Your task to perform on an android device: Search for the best selling vase on Crate & Barrel Image 0: 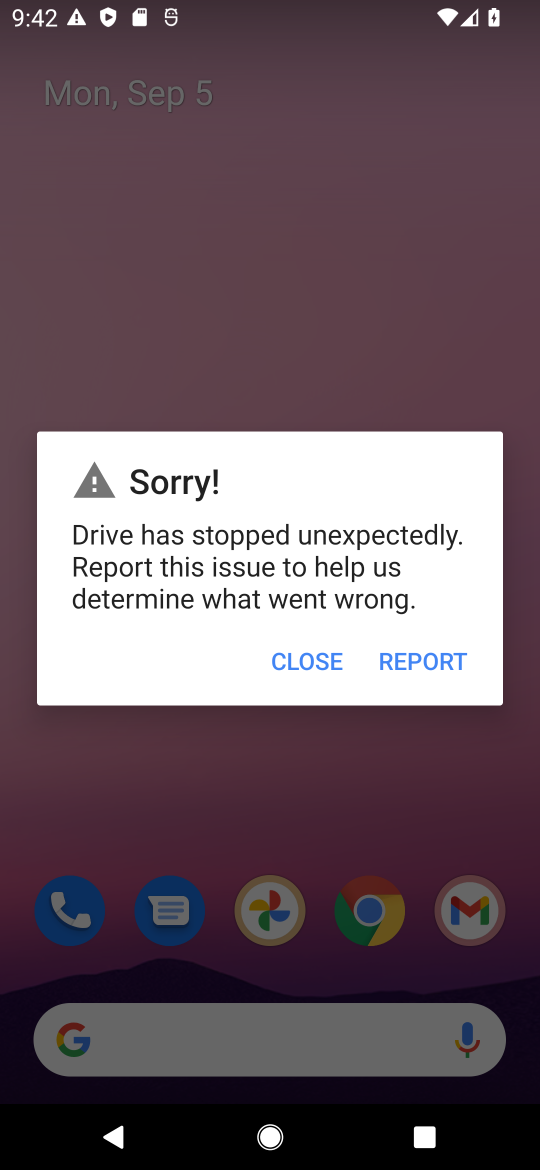
Step 0: click (318, 659)
Your task to perform on an android device: Search for the best selling vase on Crate & Barrel Image 1: 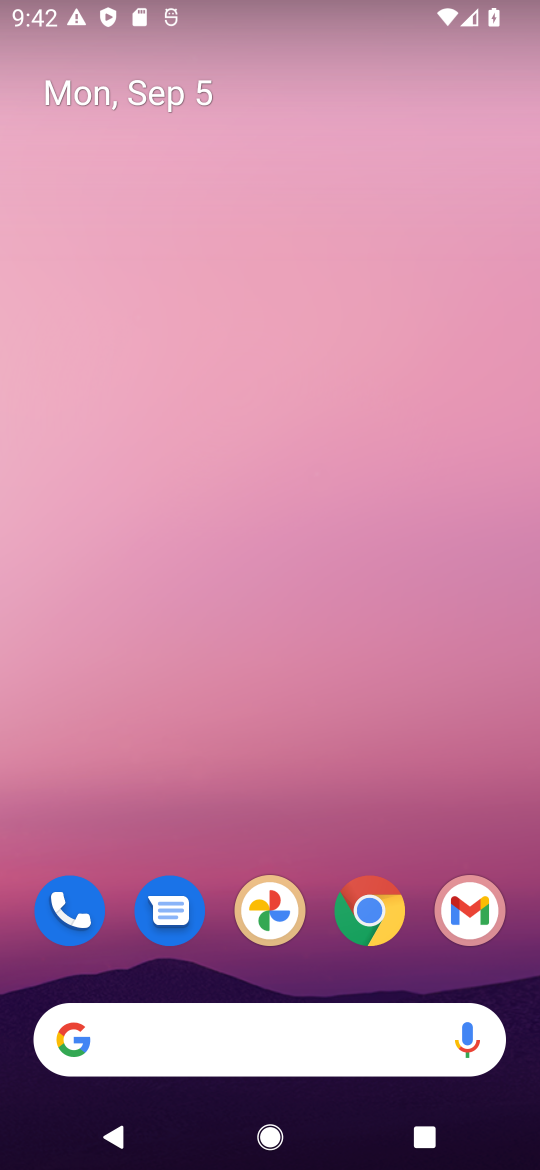
Step 1: click (372, 934)
Your task to perform on an android device: Search for the best selling vase on Crate & Barrel Image 2: 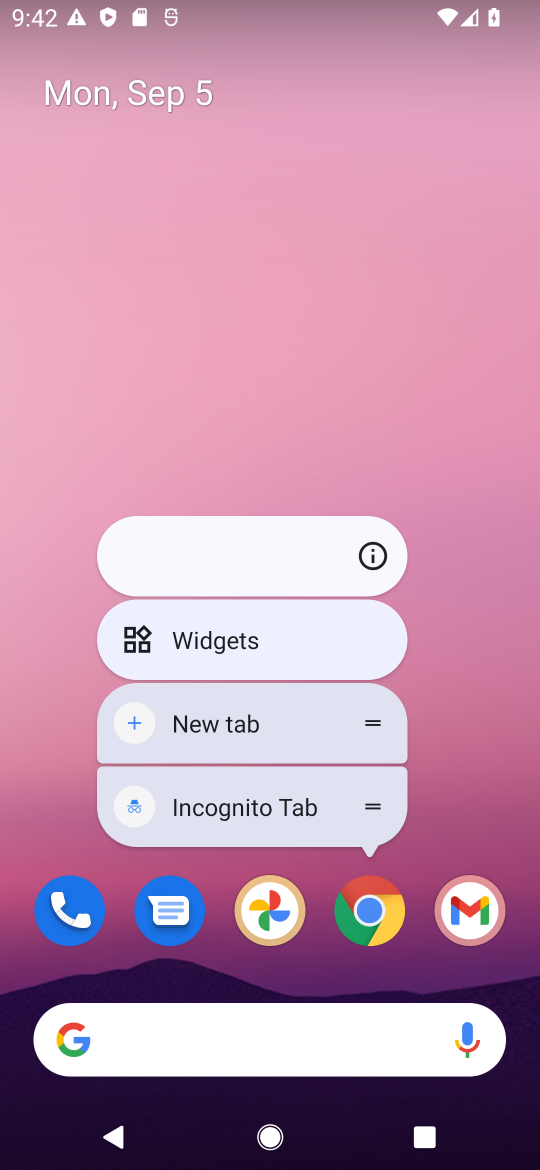
Step 2: click (380, 936)
Your task to perform on an android device: Search for the best selling vase on Crate & Barrel Image 3: 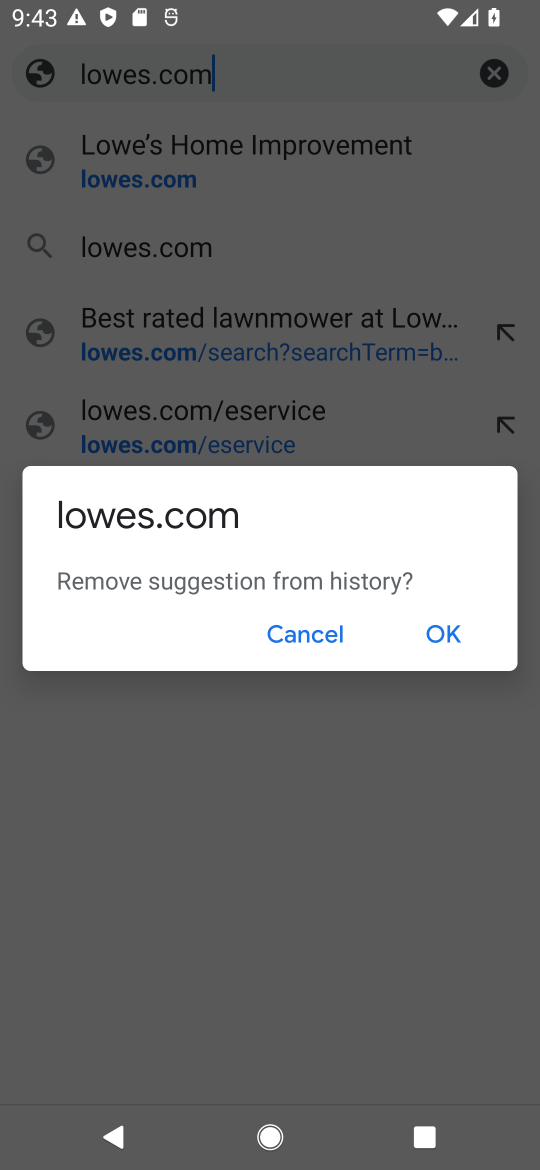
Step 3: click (311, 641)
Your task to perform on an android device: Search for the best selling vase on Crate & Barrel Image 4: 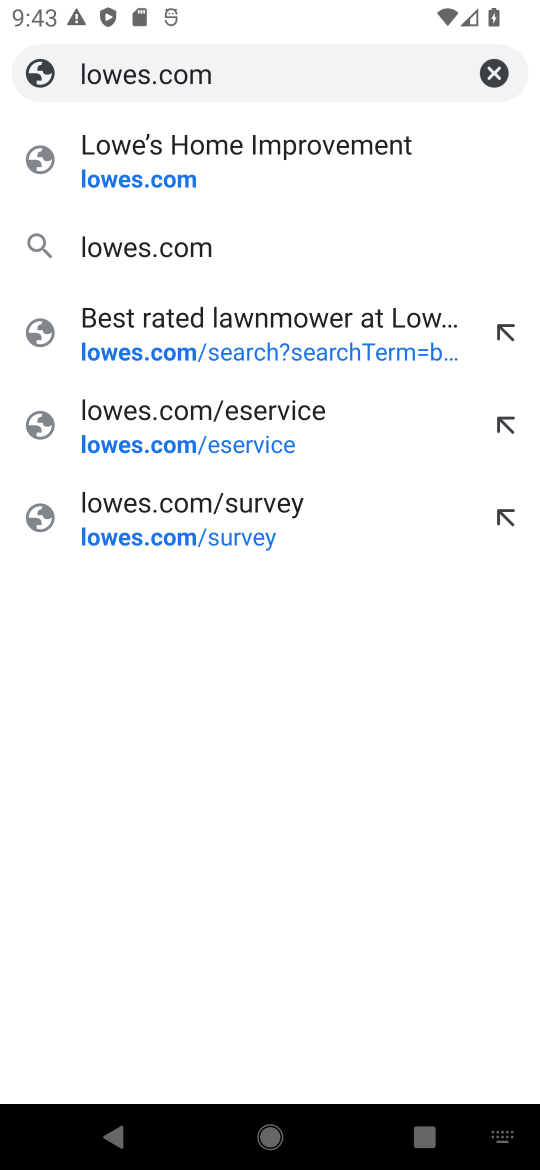
Step 4: click (492, 83)
Your task to perform on an android device: Search for the best selling vase on Crate & Barrel Image 5: 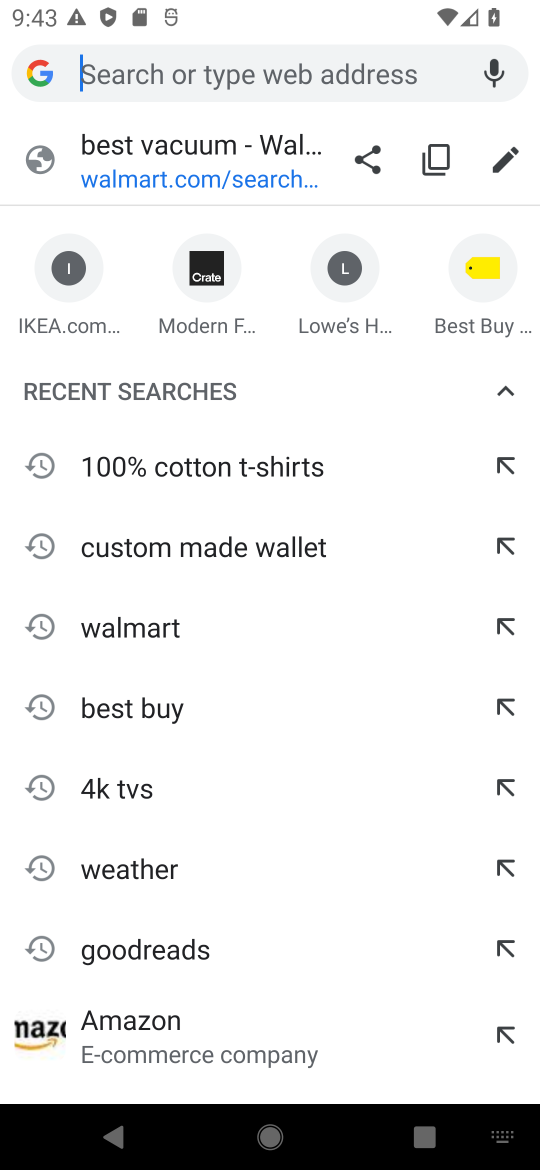
Step 5: type "crate and barrel"
Your task to perform on an android device: Search for the best selling vase on Crate & Barrel Image 6: 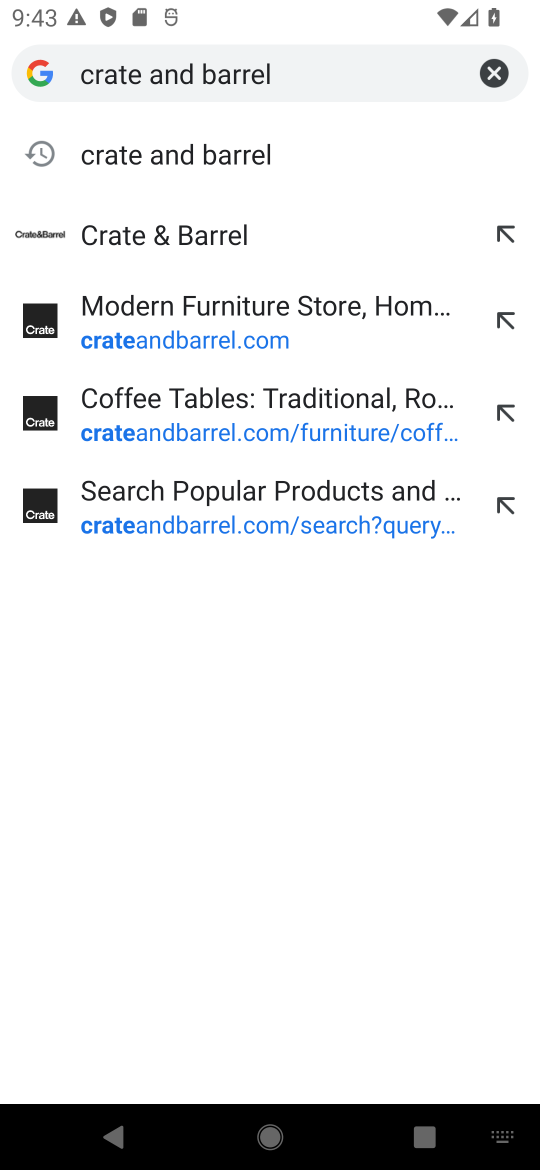
Step 6: click (209, 243)
Your task to perform on an android device: Search for the best selling vase on Crate & Barrel Image 7: 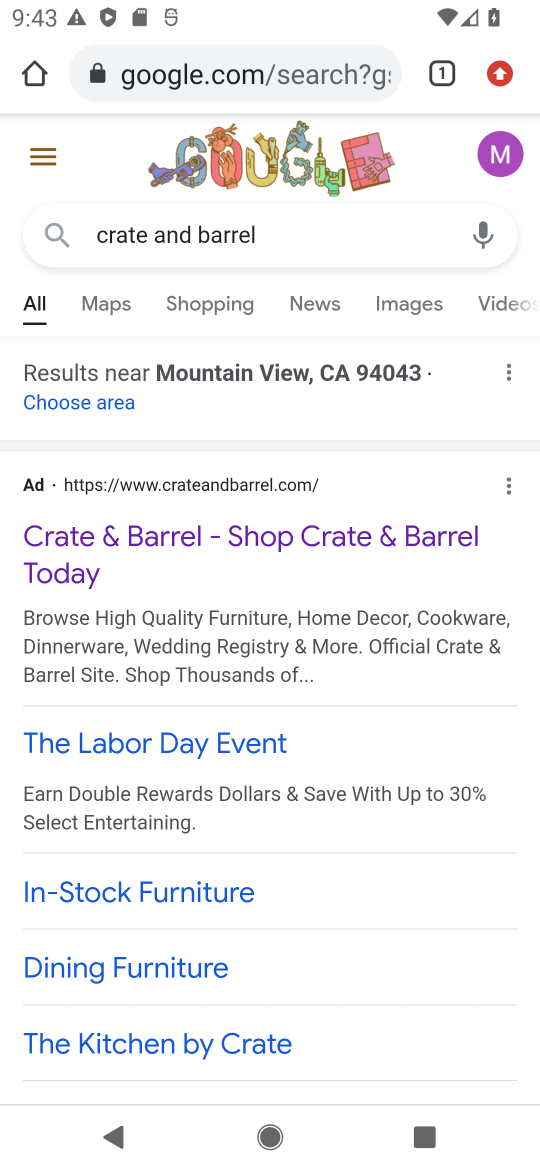
Step 7: click (139, 547)
Your task to perform on an android device: Search for the best selling vase on Crate & Barrel Image 8: 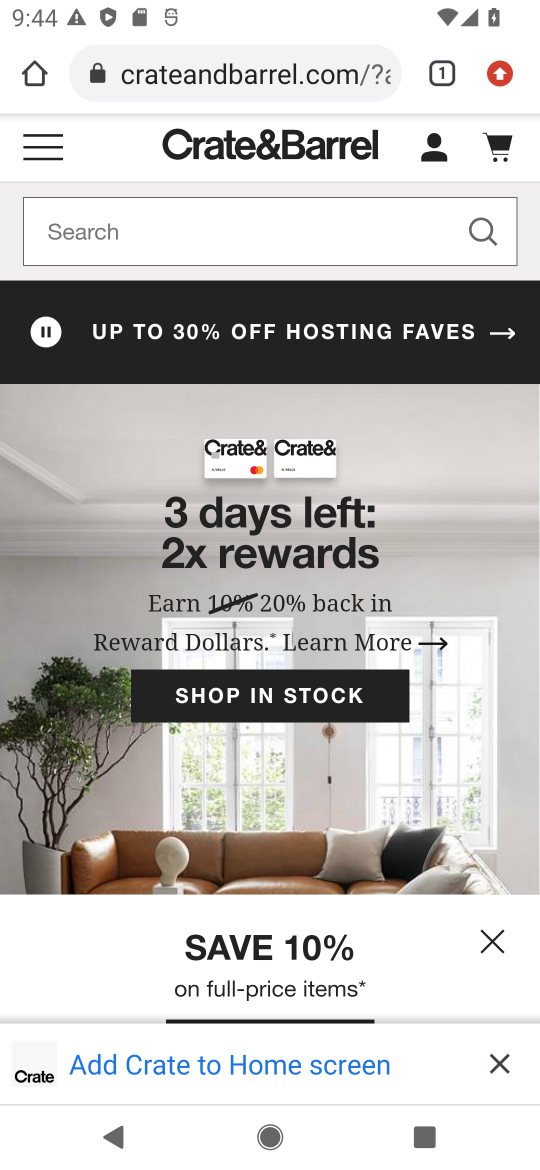
Step 8: click (269, 274)
Your task to perform on an android device: Search for the best selling vase on Crate & Barrel Image 9: 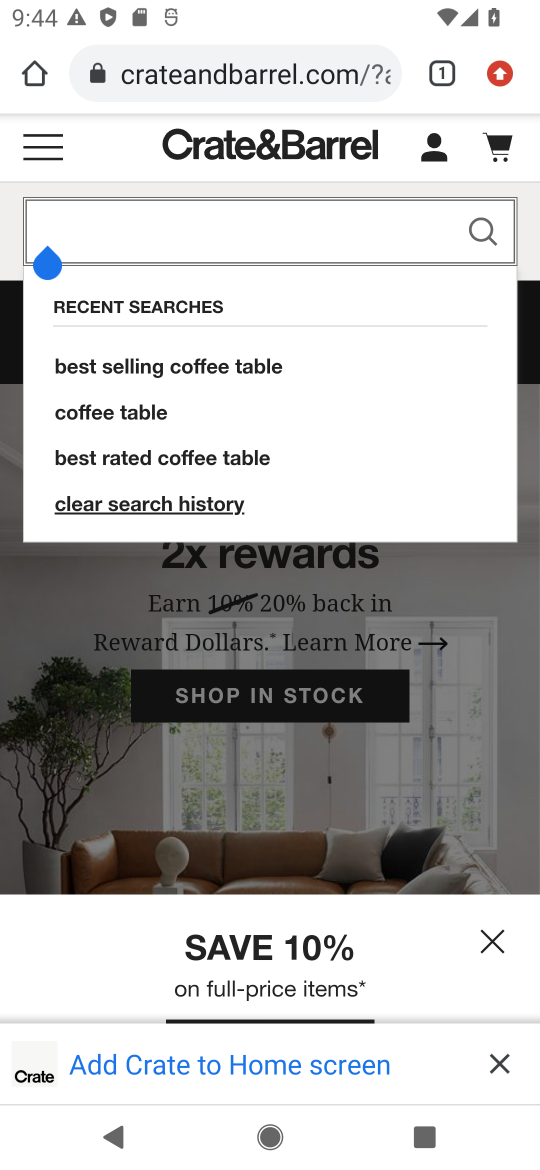
Step 9: type "best selling vase"
Your task to perform on an android device: Search for the best selling vase on Crate & Barrel Image 10: 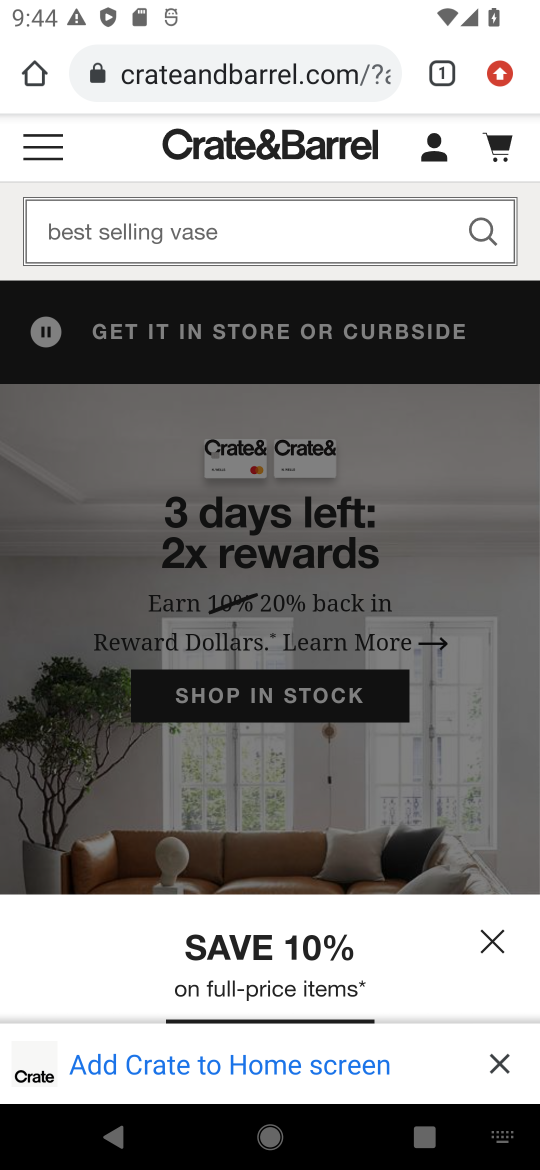
Step 10: press enter
Your task to perform on an android device: Search for the best selling vase on Crate & Barrel Image 11: 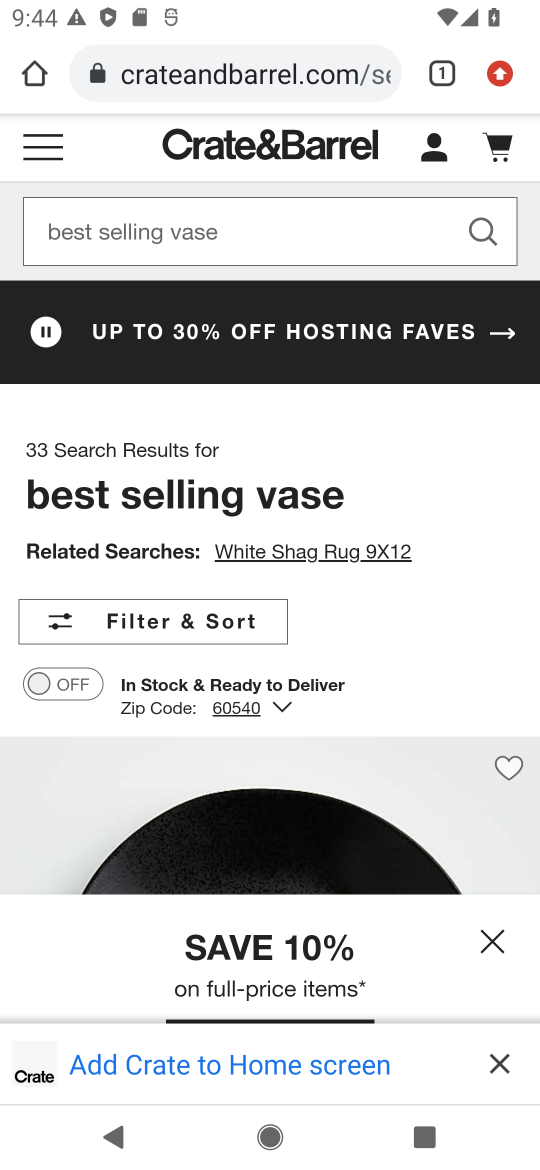
Step 11: task complete